Your task to perform on an android device: toggle priority inbox in the gmail app Image 0: 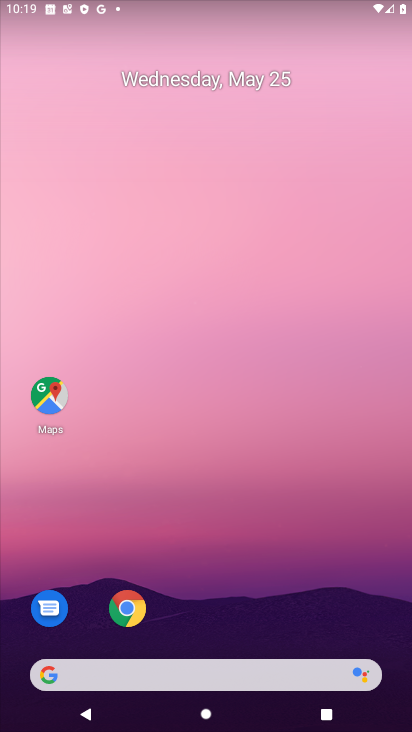
Step 0: drag from (252, 590) to (264, 4)
Your task to perform on an android device: toggle priority inbox in the gmail app Image 1: 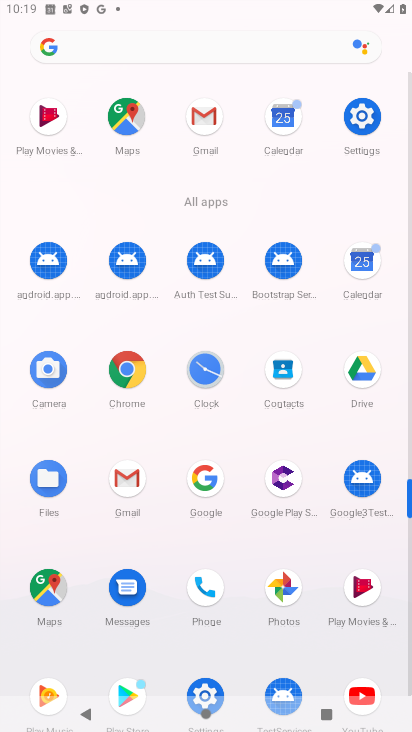
Step 1: click (197, 165)
Your task to perform on an android device: toggle priority inbox in the gmail app Image 2: 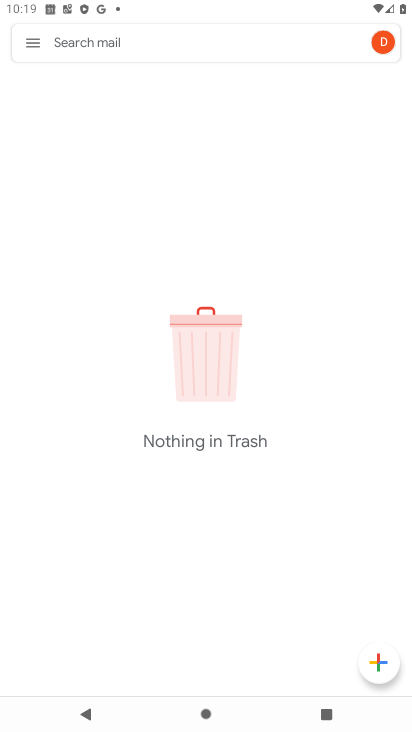
Step 2: click (25, 37)
Your task to perform on an android device: toggle priority inbox in the gmail app Image 3: 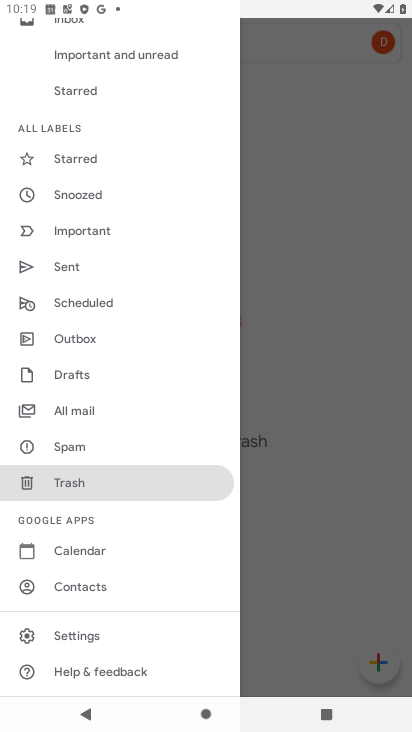
Step 3: click (86, 641)
Your task to perform on an android device: toggle priority inbox in the gmail app Image 4: 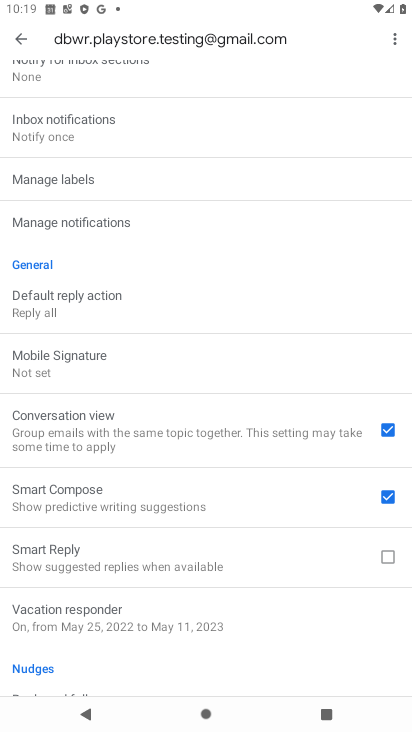
Step 4: drag from (174, 209) to (191, 555)
Your task to perform on an android device: toggle priority inbox in the gmail app Image 5: 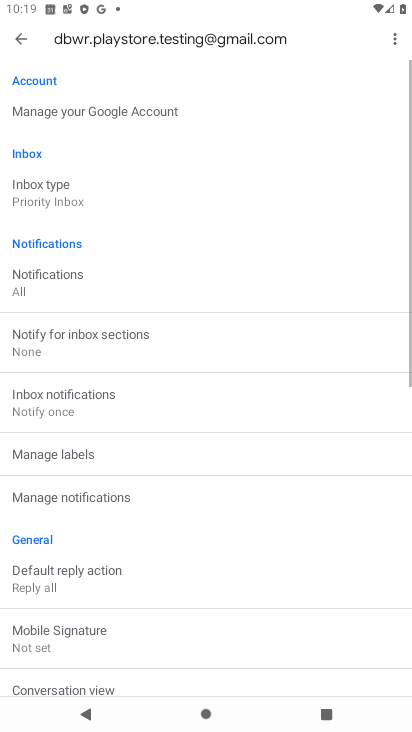
Step 5: click (49, 144)
Your task to perform on an android device: toggle priority inbox in the gmail app Image 6: 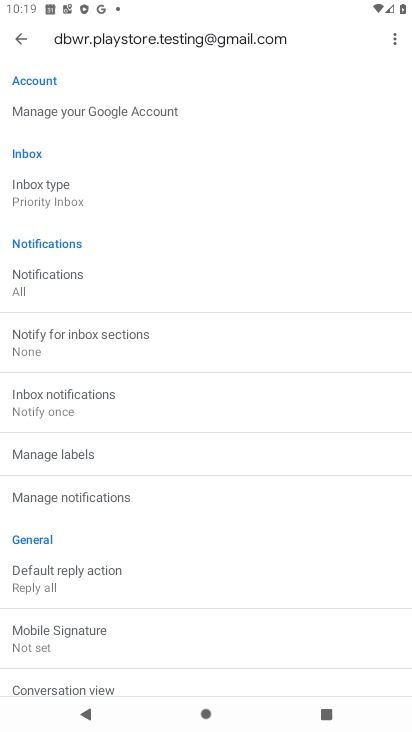
Step 6: click (38, 194)
Your task to perform on an android device: toggle priority inbox in the gmail app Image 7: 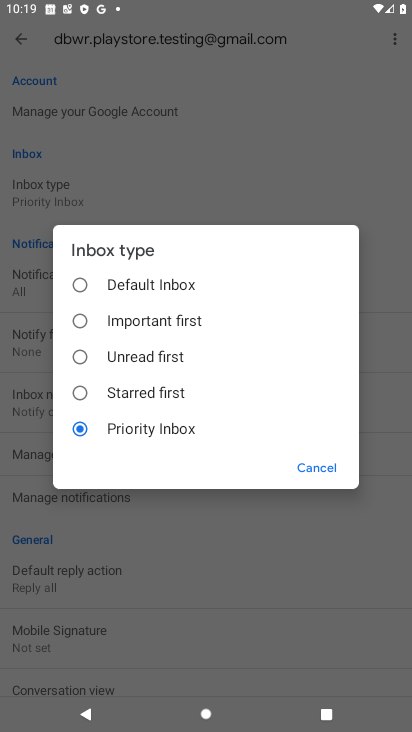
Step 7: click (84, 317)
Your task to perform on an android device: toggle priority inbox in the gmail app Image 8: 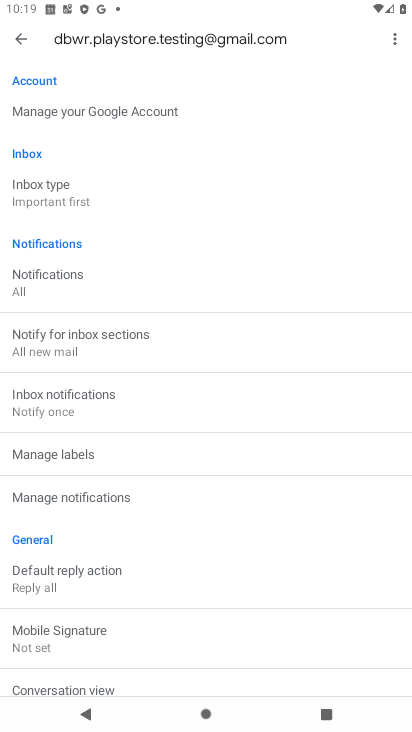
Step 8: task complete